Your task to perform on an android device: toggle notification dots Image 0: 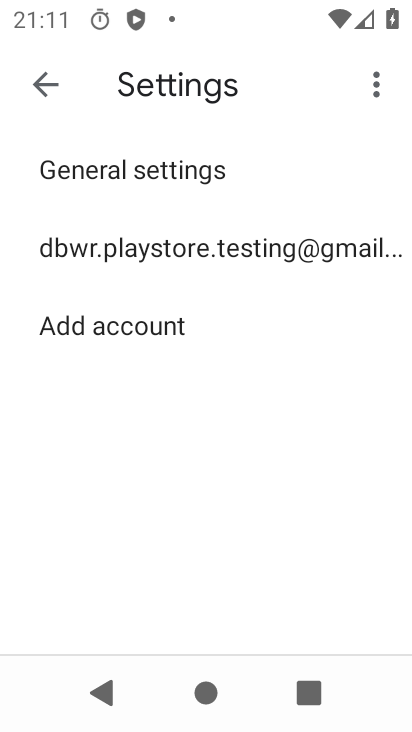
Step 0: press home button
Your task to perform on an android device: toggle notification dots Image 1: 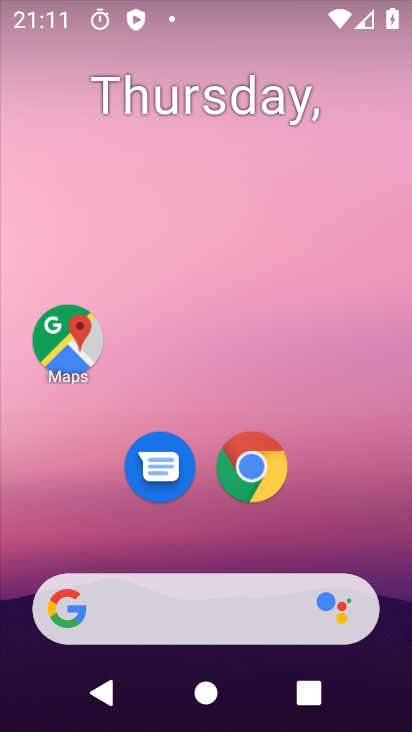
Step 1: drag from (332, 504) to (319, 143)
Your task to perform on an android device: toggle notification dots Image 2: 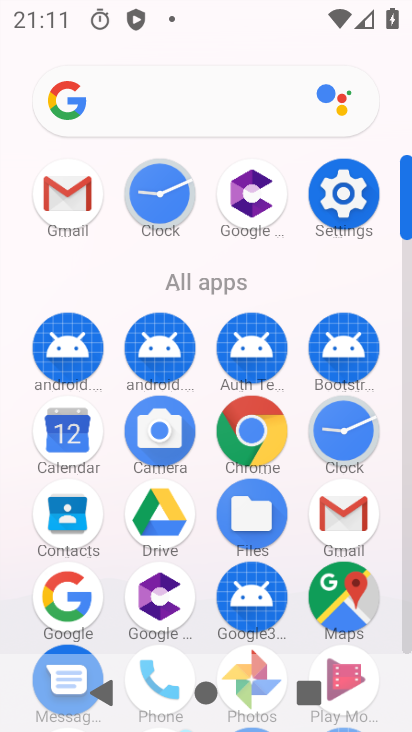
Step 2: click (343, 194)
Your task to perform on an android device: toggle notification dots Image 3: 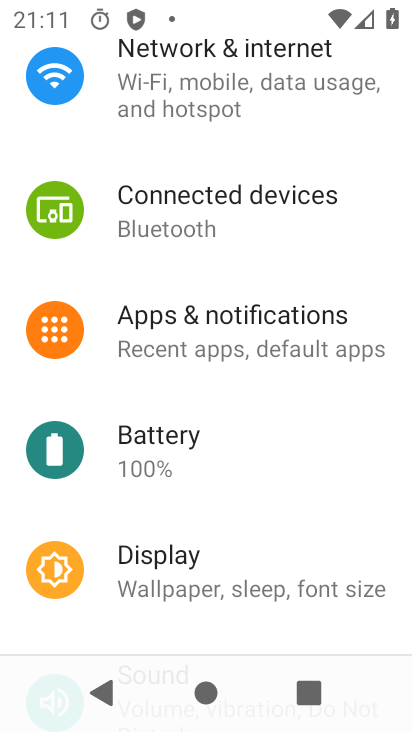
Step 3: drag from (247, 126) to (256, 686)
Your task to perform on an android device: toggle notification dots Image 4: 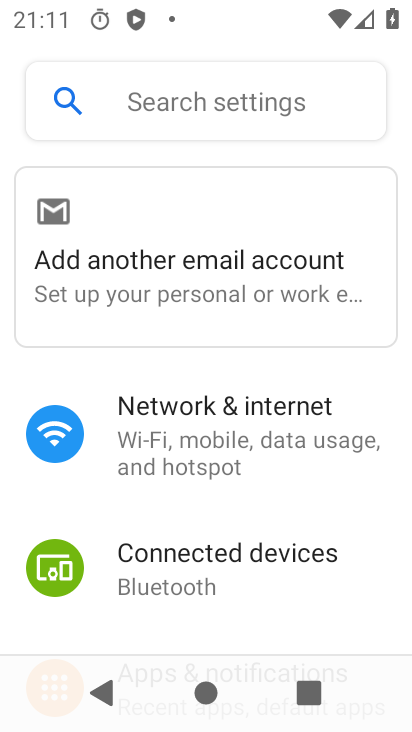
Step 4: drag from (239, 592) to (289, 99)
Your task to perform on an android device: toggle notification dots Image 5: 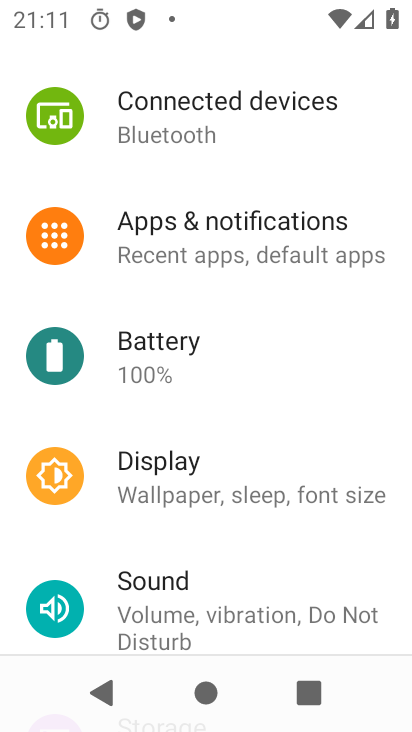
Step 5: click (249, 211)
Your task to perform on an android device: toggle notification dots Image 6: 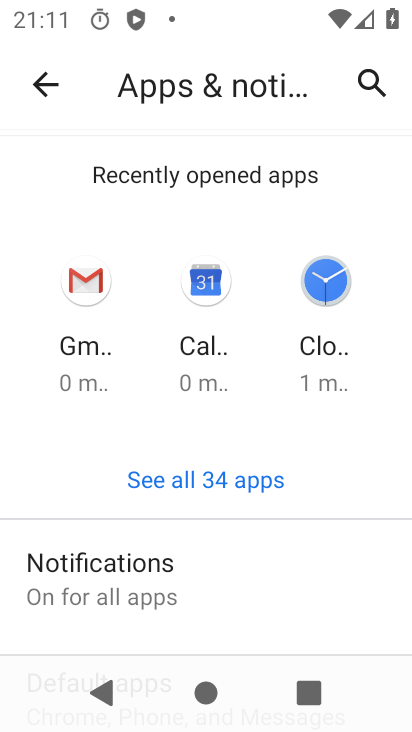
Step 6: click (173, 586)
Your task to perform on an android device: toggle notification dots Image 7: 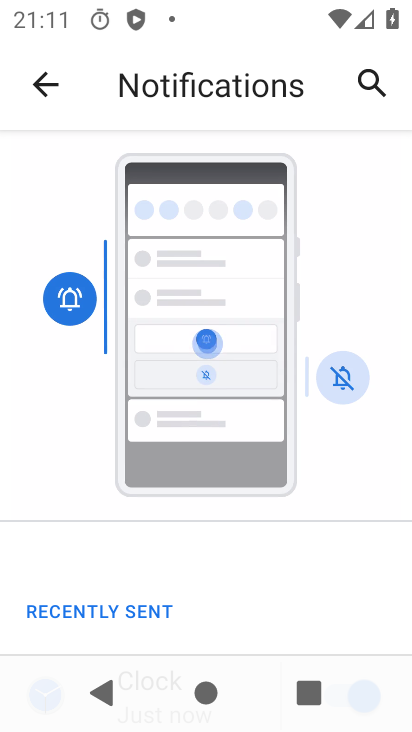
Step 7: drag from (294, 580) to (355, 95)
Your task to perform on an android device: toggle notification dots Image 8: 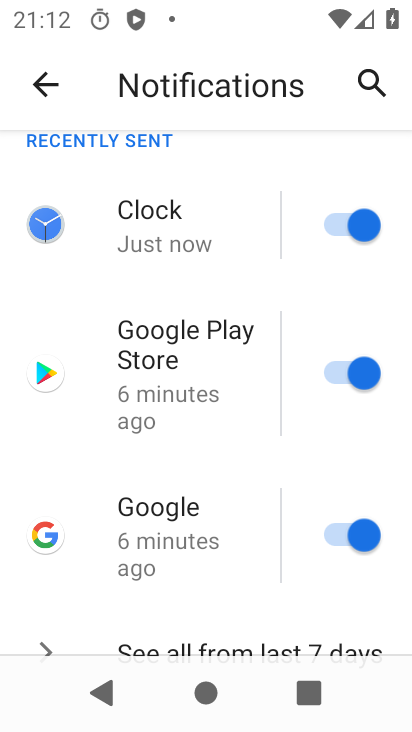
Step 8: drag from (196, 583) to (219, 187)
Your task to perform on an android device: toggle notification dots Image 9: 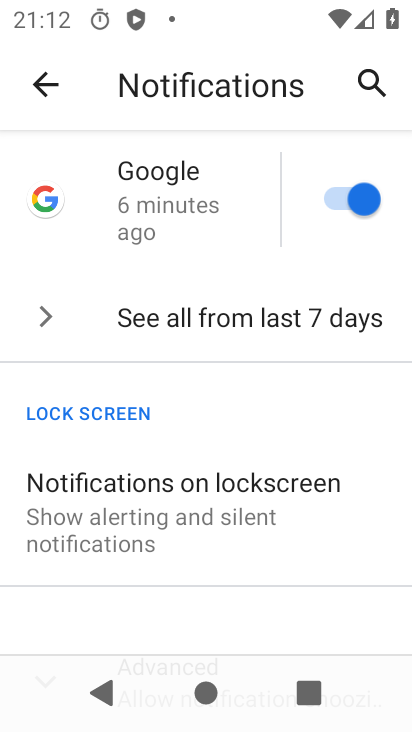
Step 9: drag from (219, 531) to (229, 160)
Your task to perform on an android device: toggle notification dots Image 10: 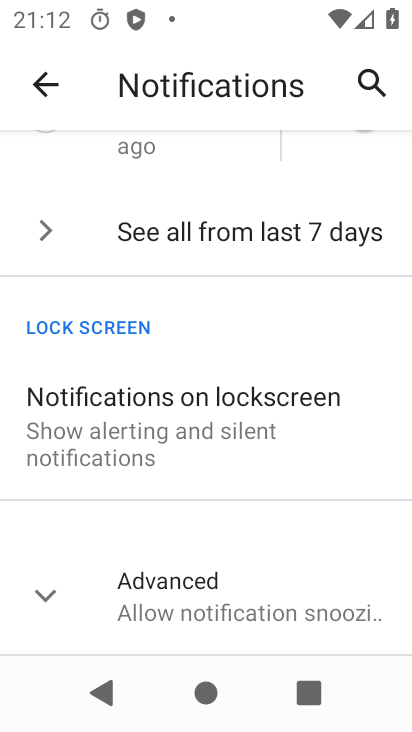
Step 10: click (192, 576)
Your task to perform on an android device: toggle notification dots Image 11: 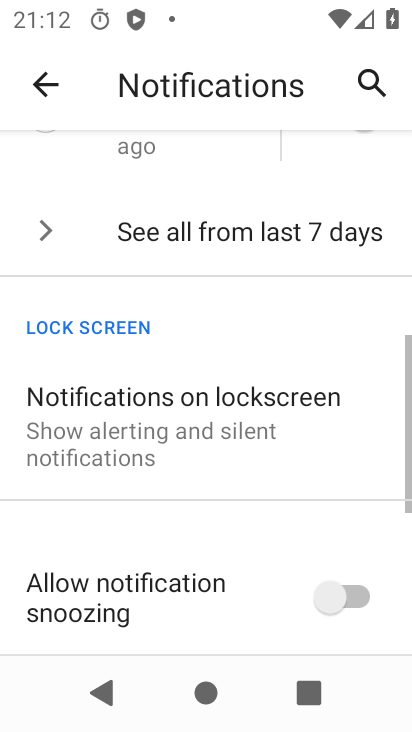
Step 11: drag from (275, 563) to (282, 95)
Your task to perform on an android device: toggle notification dots Image 12: 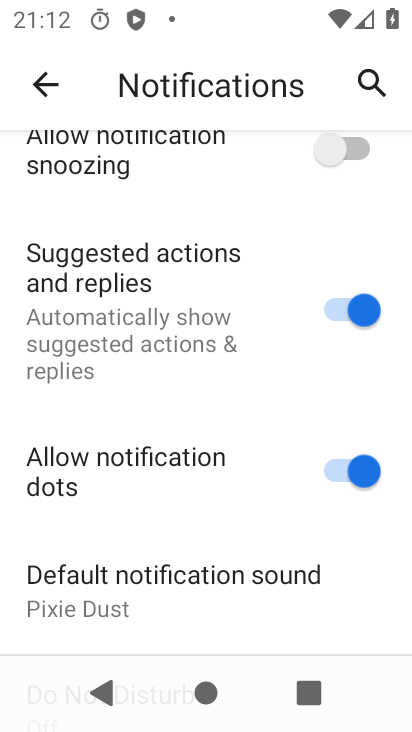
Step 12: click (349, 467)
Your task to perform on an android device: toggle notification dots Image 13: 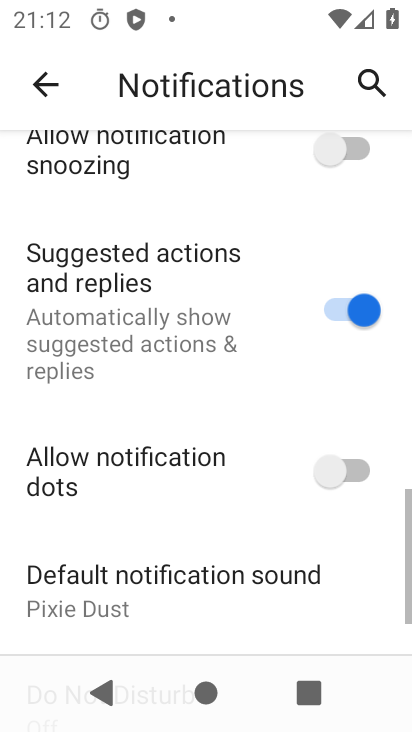
Step 13: task complete